Your task to perform on an android device: Open the calendar app, open the side menu, and click the "Day" option Image 0: 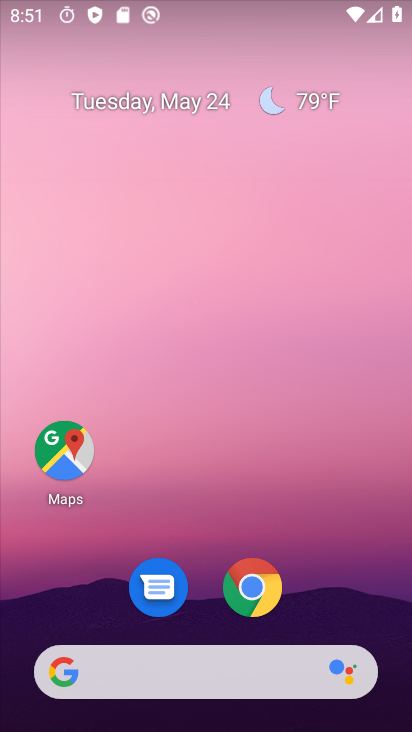
Step 0: drag from (346, 606) to (234, 94)
Your task to perform on an android device: Open the calendar app, open the side menu, and click the "Day" option Image 1: 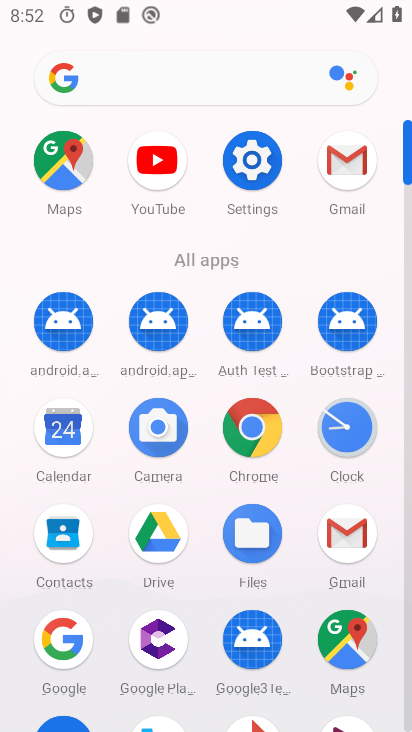
Step 1: click (63, 429)
Your task to perform on an android device: Open the calendar app, open the side menu, and click the "Day" option Image 2: 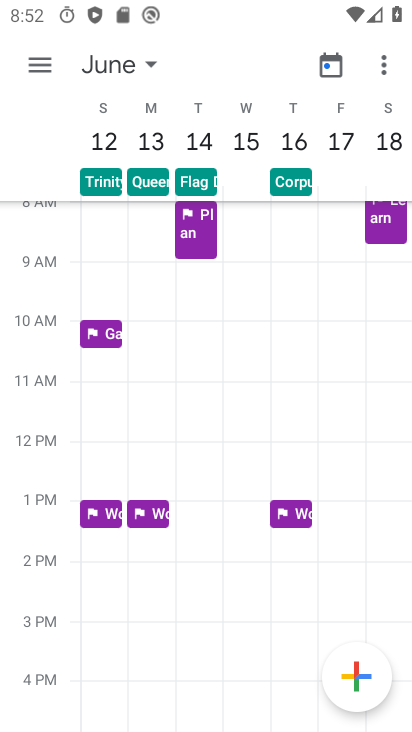
Step 2: click (44, 69)
Your task to perform on an android device: Open the calendar app, open the side menu, and click the "Day" option Image 3: 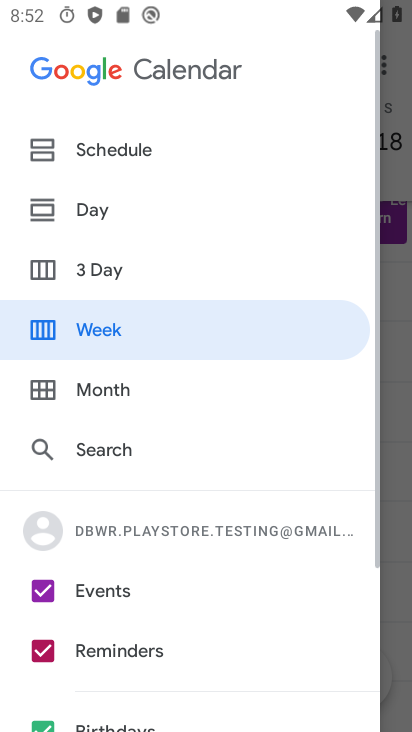
Step 3: click (93, 215)
Your task to perform on an android device: Open the calendar app, open the side menu, and click the "Day" option Image 4: 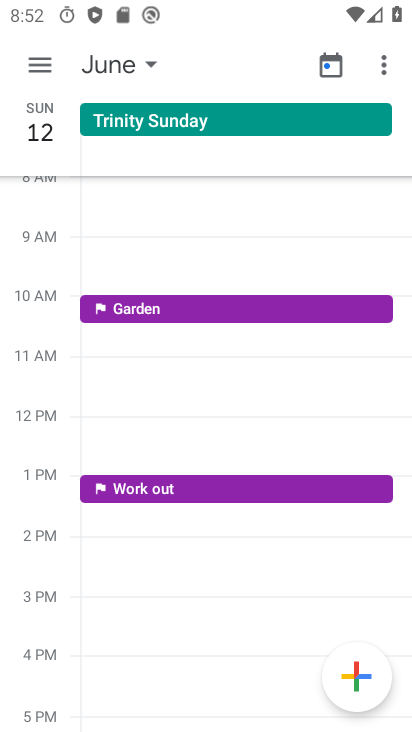
Step 4: task complete